Your task to perform on an android device: change alarm snooze length Image 0: 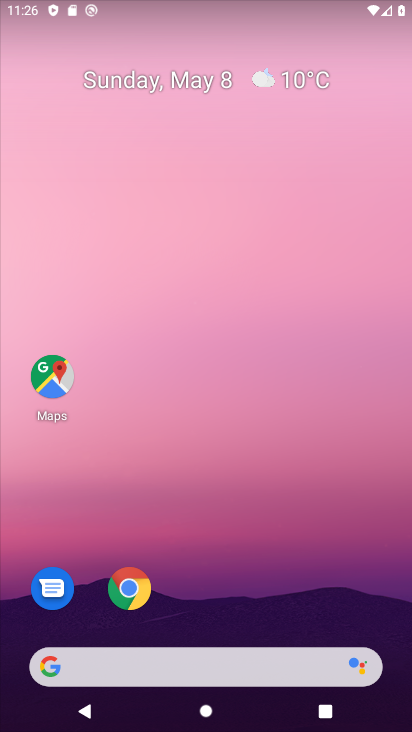
Step 0: drag from (228, 528) to (319, 49)
Your task to perform on an android device: change alarm snooze length Image 1: 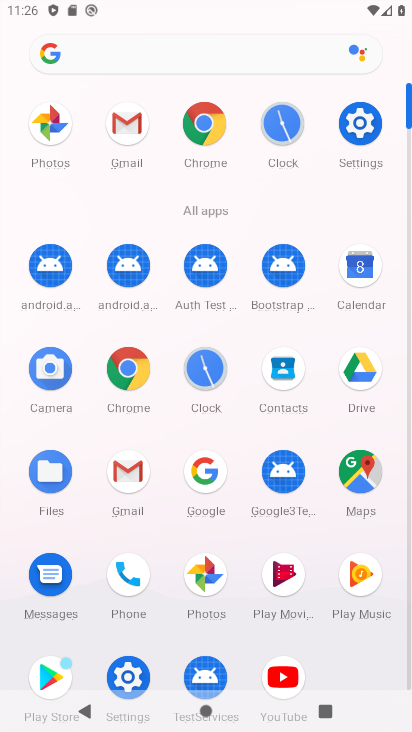
Step 1: click (286, 126)
Your task to perform on an android device: change alarm snooze length Image 2: 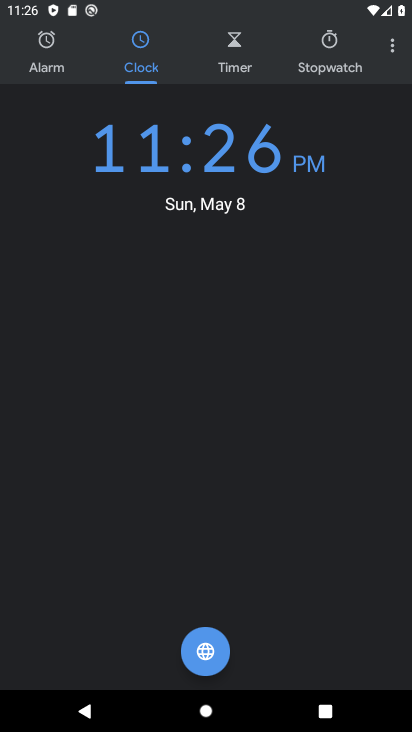
Step 2: click (387, 52)
Your task to perform on an android device: change alarm snooze length Image 3: 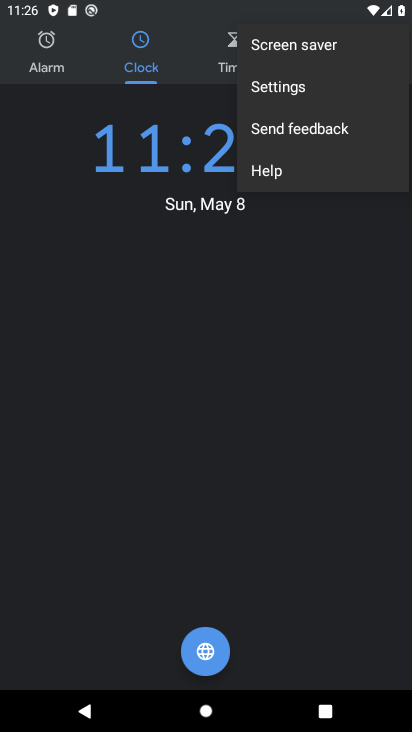
Step 3: click (324, 73)
Your task to perform on an android device: change alarm snooze length Image 4: 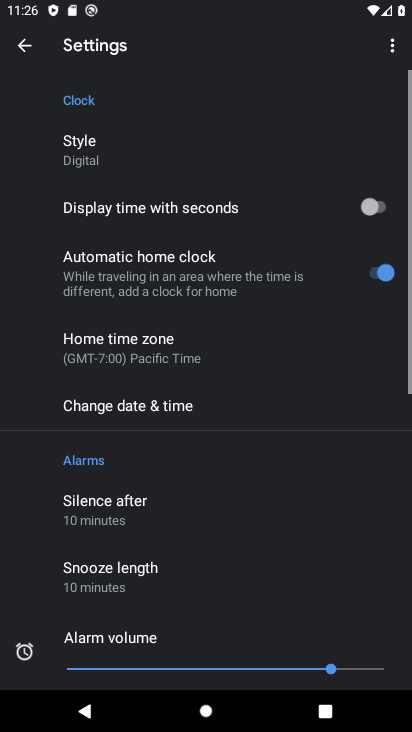
Step 4: drag from (139, 539) to (198, 231)
Your task to perform on an android device: change alarm snooze length Image 5: 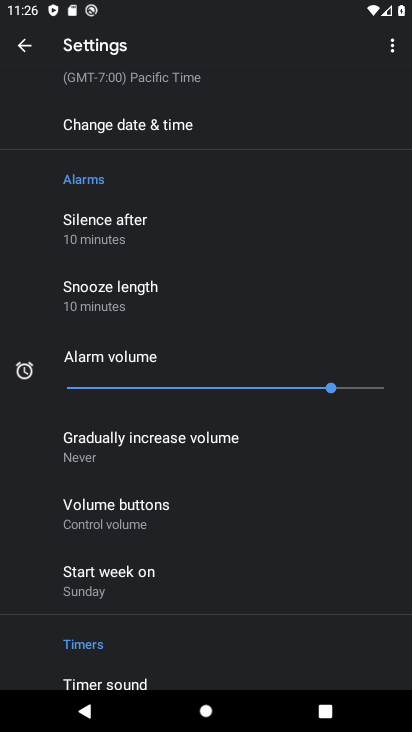
Step 5: click (103, 293)
Your task to perform on an android device: change alarm snooze length Image 6: 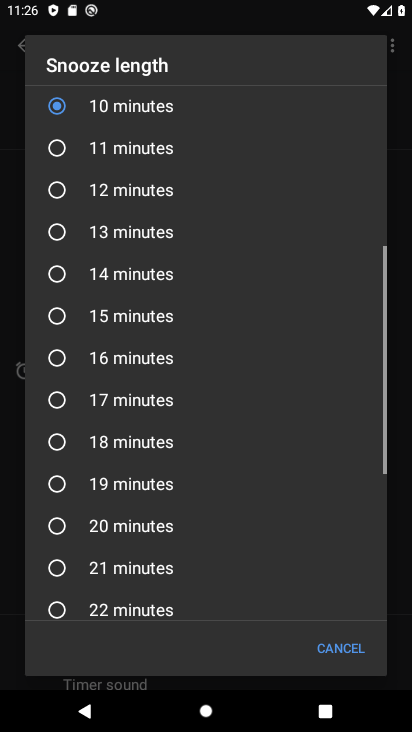
Step 6: click (53, 153)
Your task to perform on an android device: change alarm snooze length Image 7: 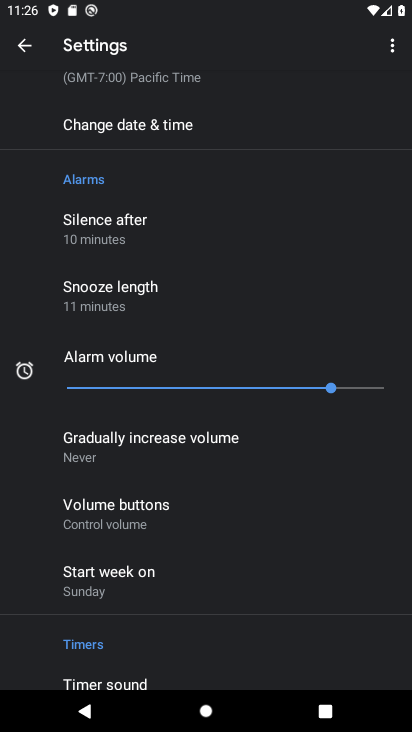
Step 7: task complete